Your task to perform on an android device: Show me the best rated vacuum on Walmart. Image 0: 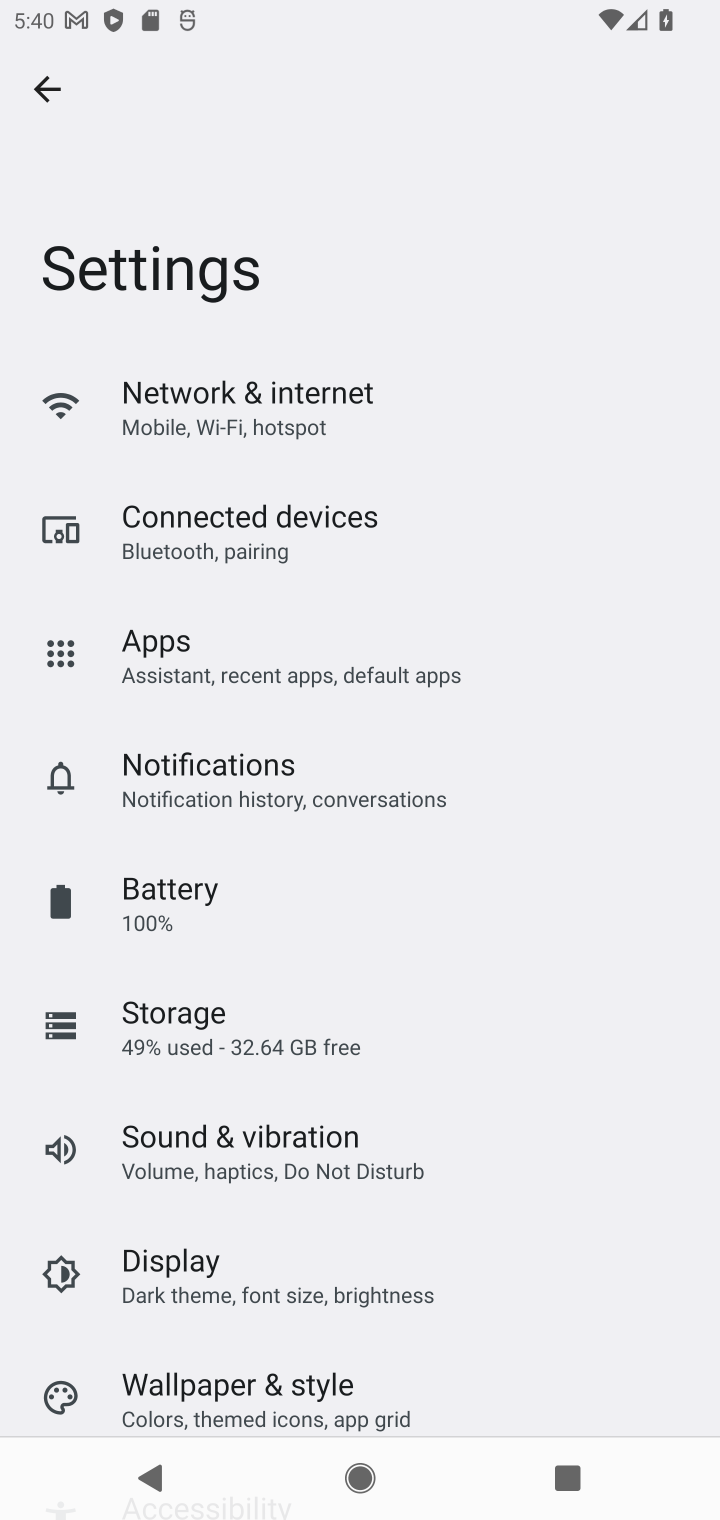
Step 0: press home button
Your task to perform on an android device: Show me the best rated vacuum on Walmart. Image 1: 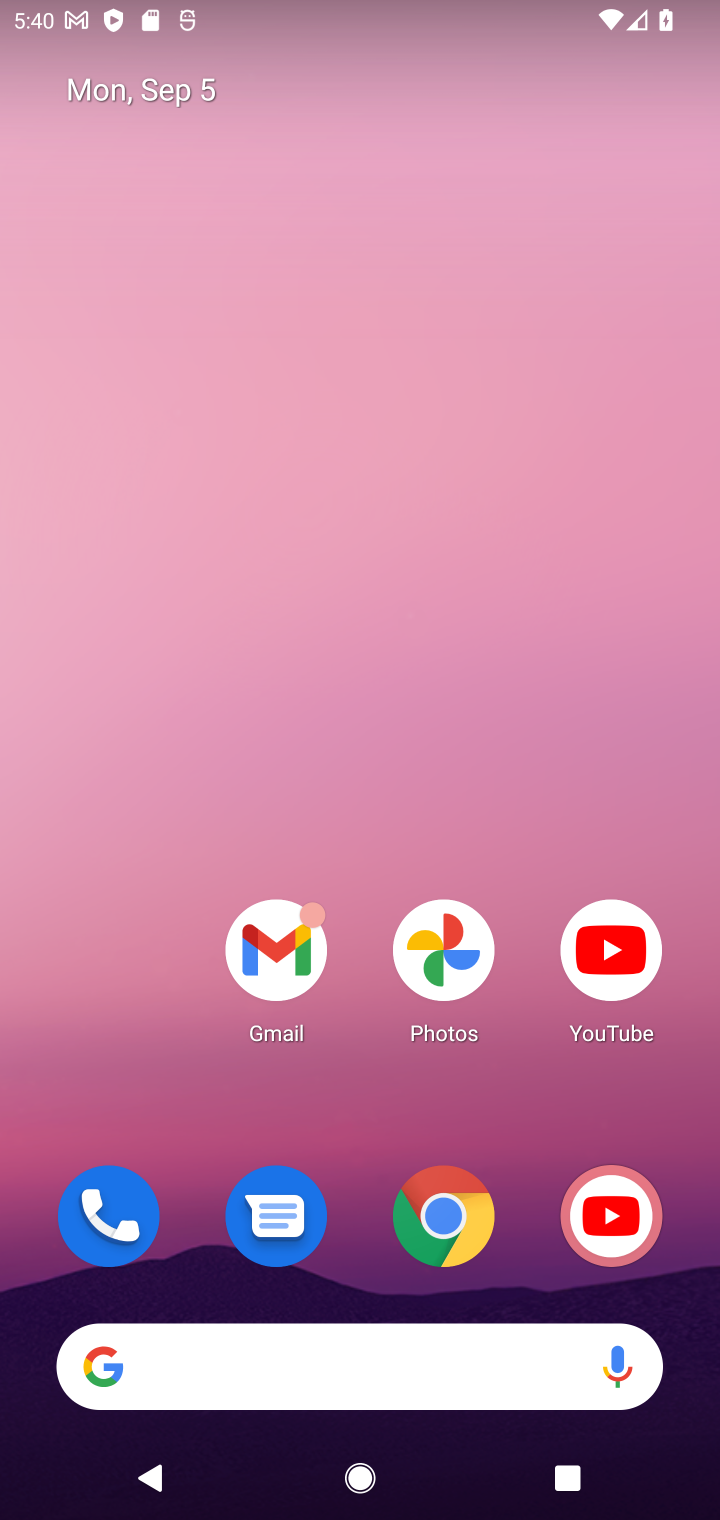
Step 1: click (474, 1201)
Your task to perform on an android device: Show me the best rated vacuum on Walmart. Image 2: 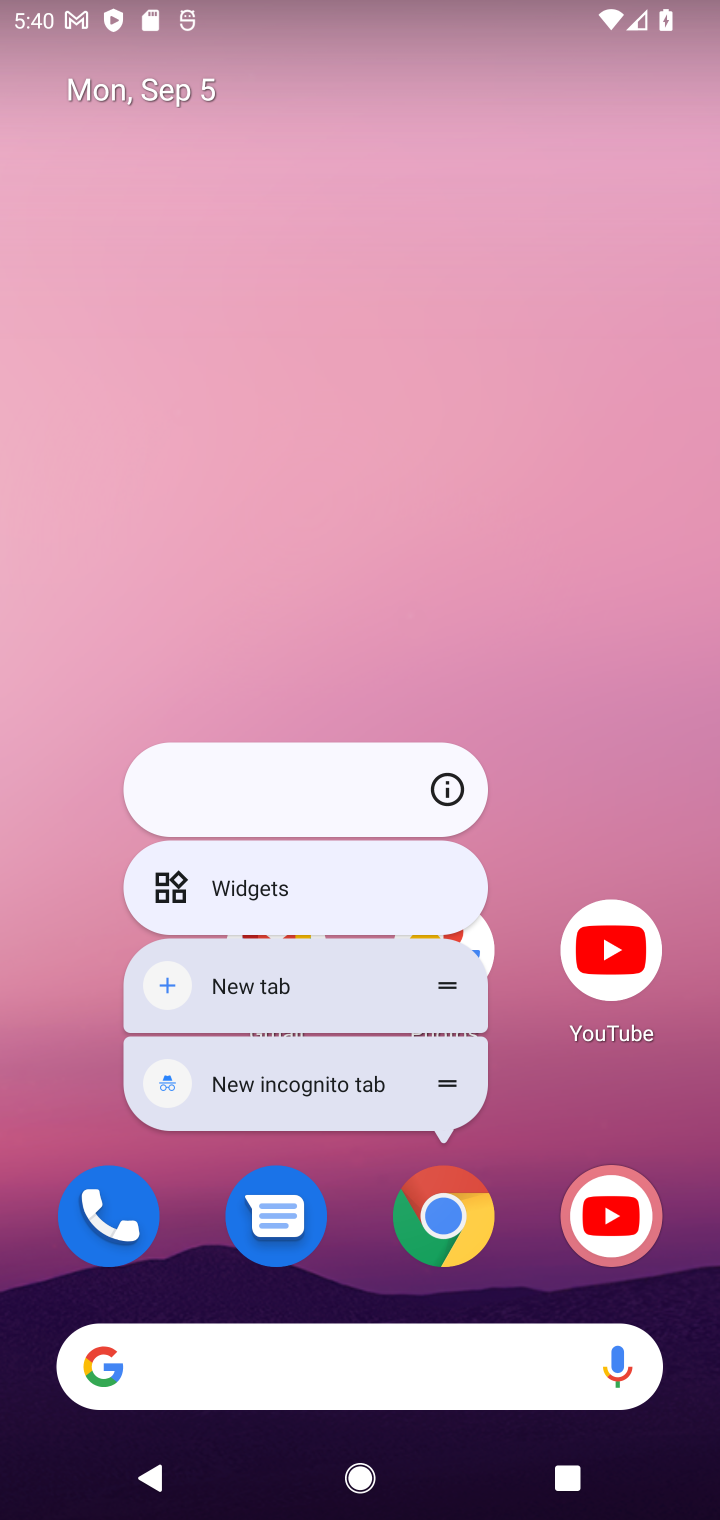
Step 2: click (474, 1201)
Your task to perform on an android device: Show me the best rated vacuum on Walmart. Image 3: 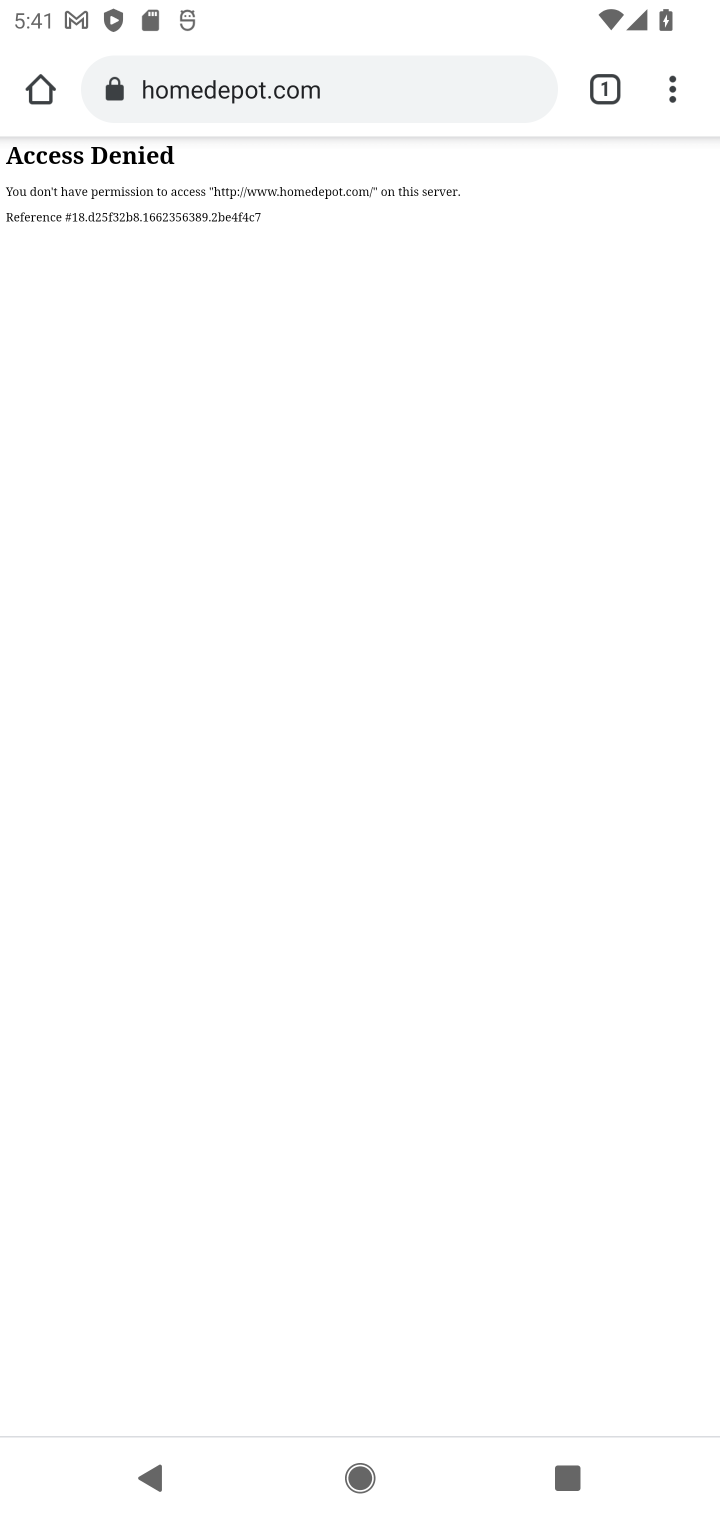
Step 3: task complete